Your task to perform on an android device: Open the map Image 0: 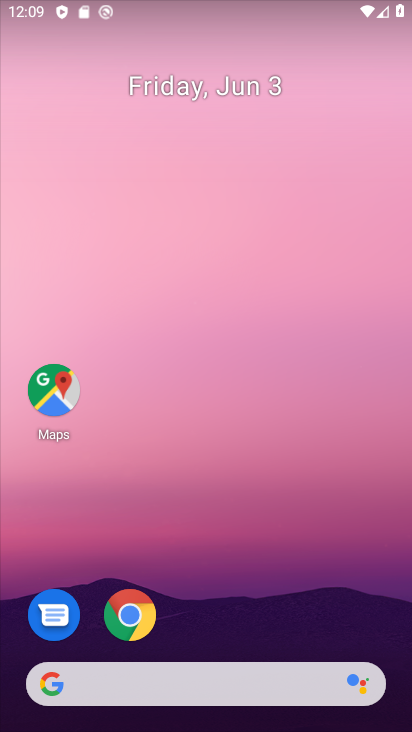
Step 0: click (58, 381)
Your task to perform on an android device: Open the map Image 1: 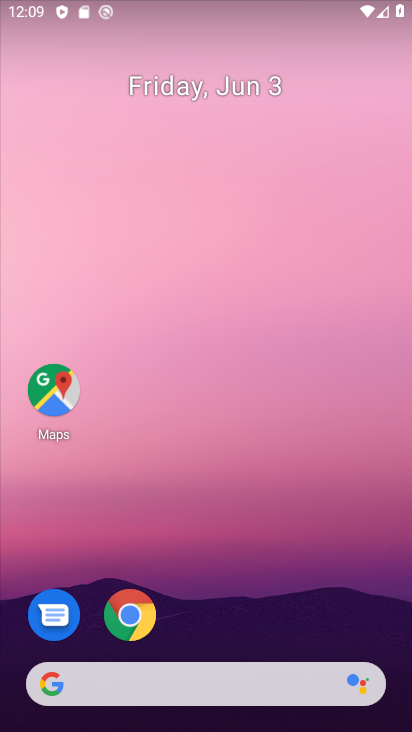
Step 1: click (58, 381)
Your task to perform on an android device: Open the map Image 2: 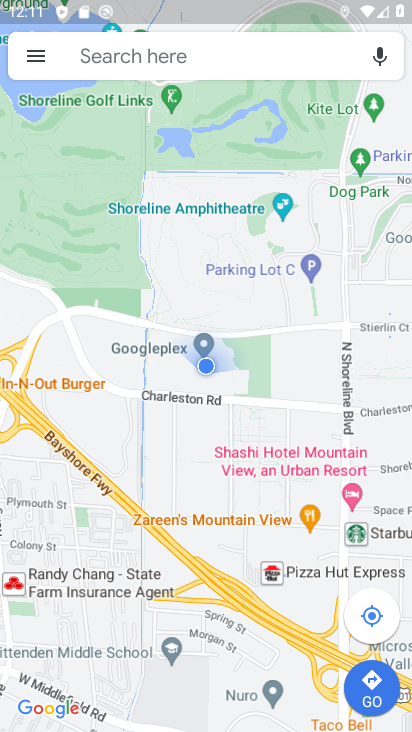
Step 2: task complete